Your task to perform on an android device: change the clock display to digital Image 0: 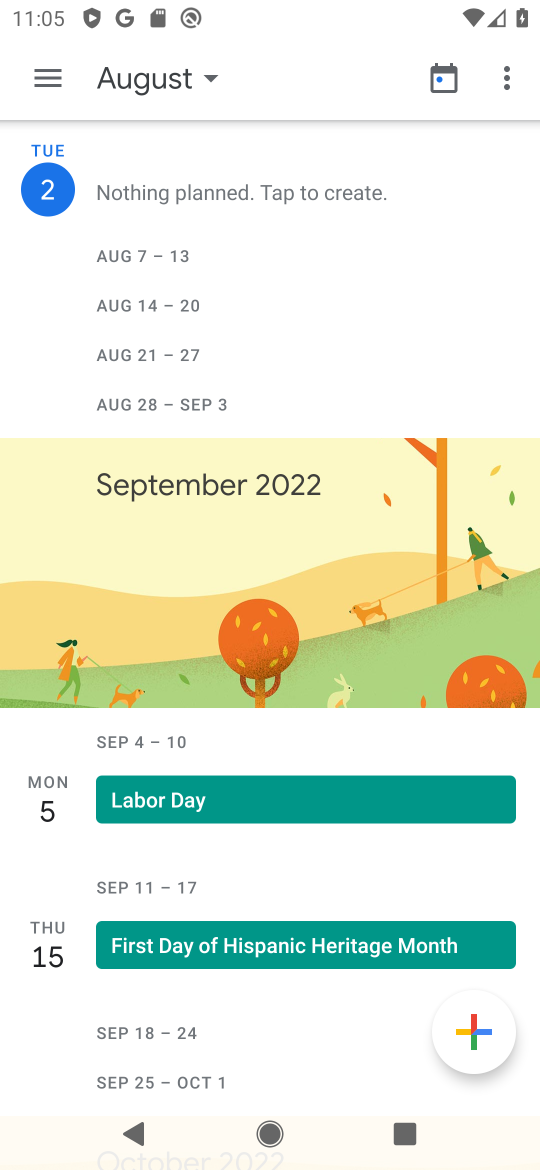
Step 0: press home button
Your task to perform on an android device: change the clock display to digital Image 1: 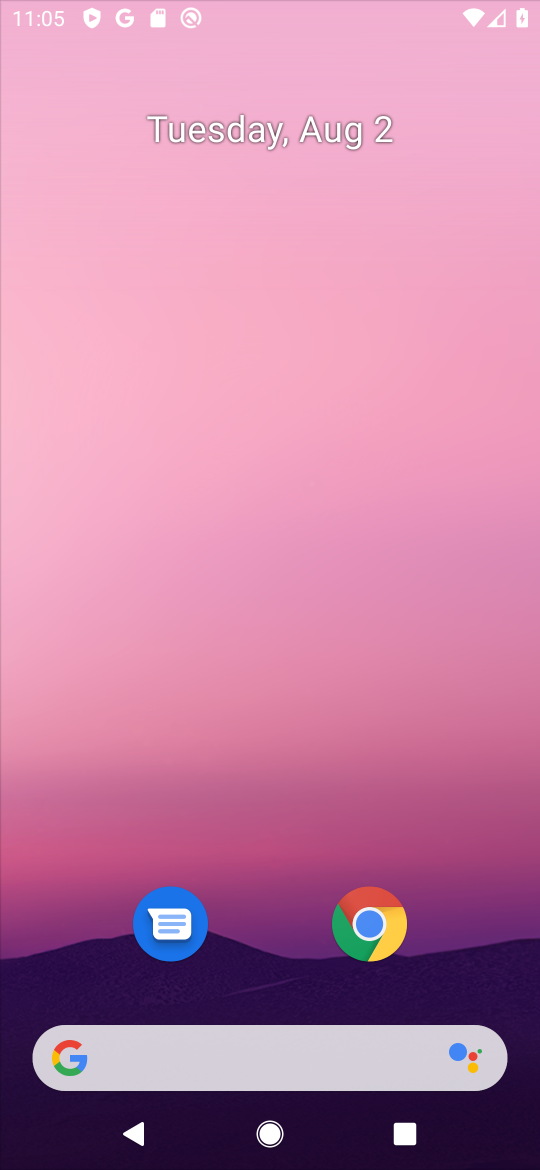
Step 1: drag from (210, 1028) to (218, 317)
Your task to perform on an android device: change the clock display to digital Image 2: 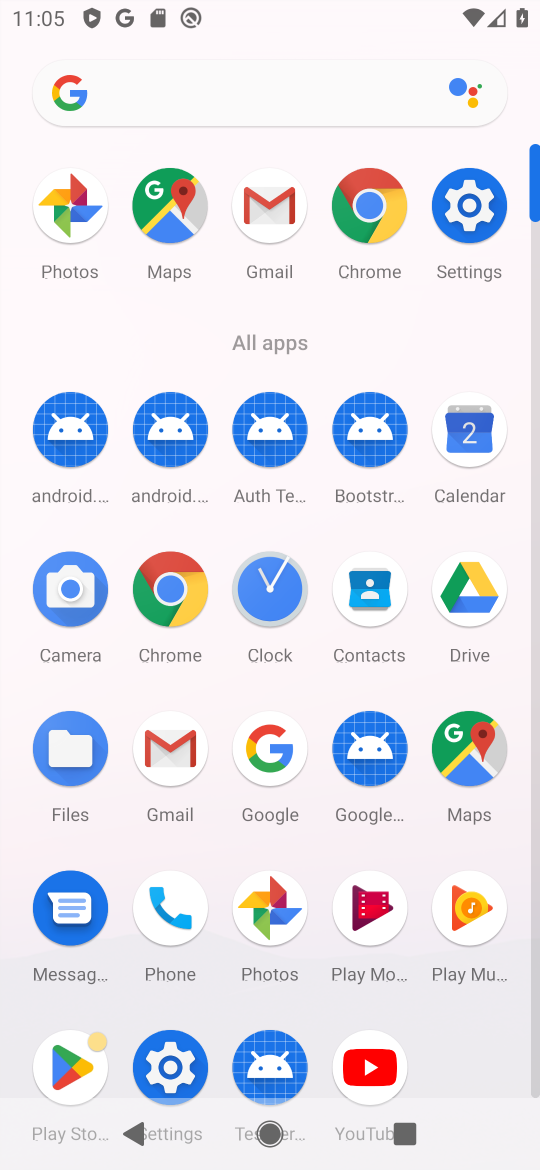
Step 2: click (280, 599)
Your task to perform on an android device: change the clock display to digital Image 3: 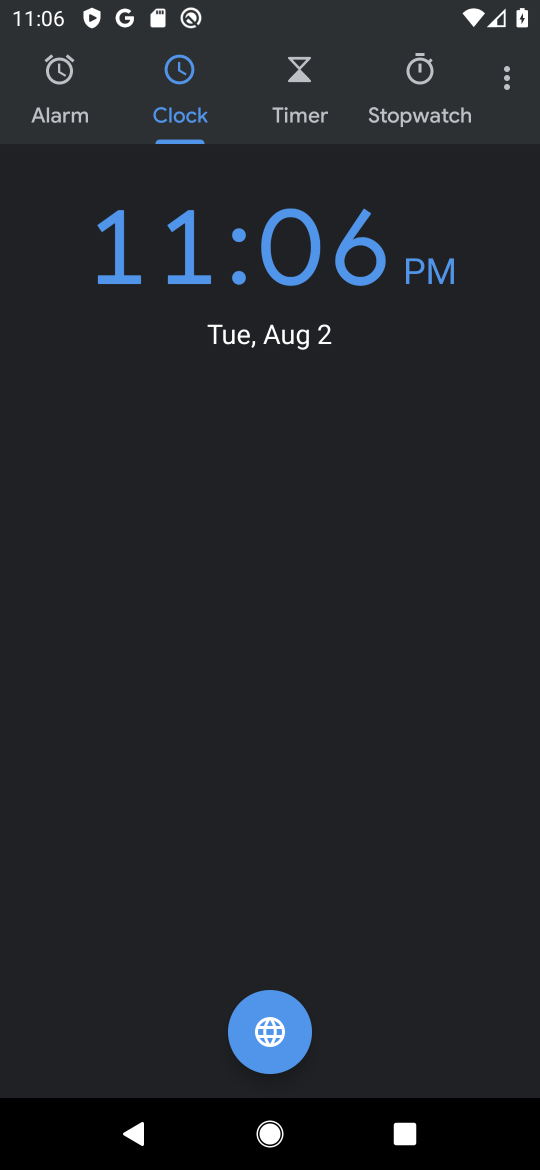
Step 3: click (516, 88)
Your task to perform on an android device: change the clock display to digital Image 4: 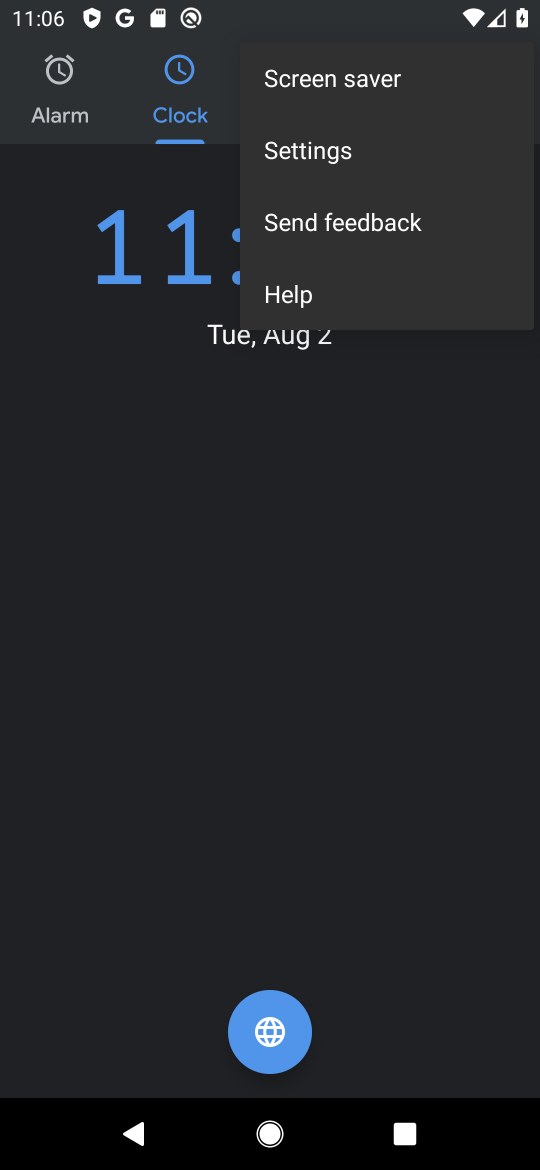
Step 4: click (366, 153)
Your task to perform on an android device: change the clock display to digital Image 5: 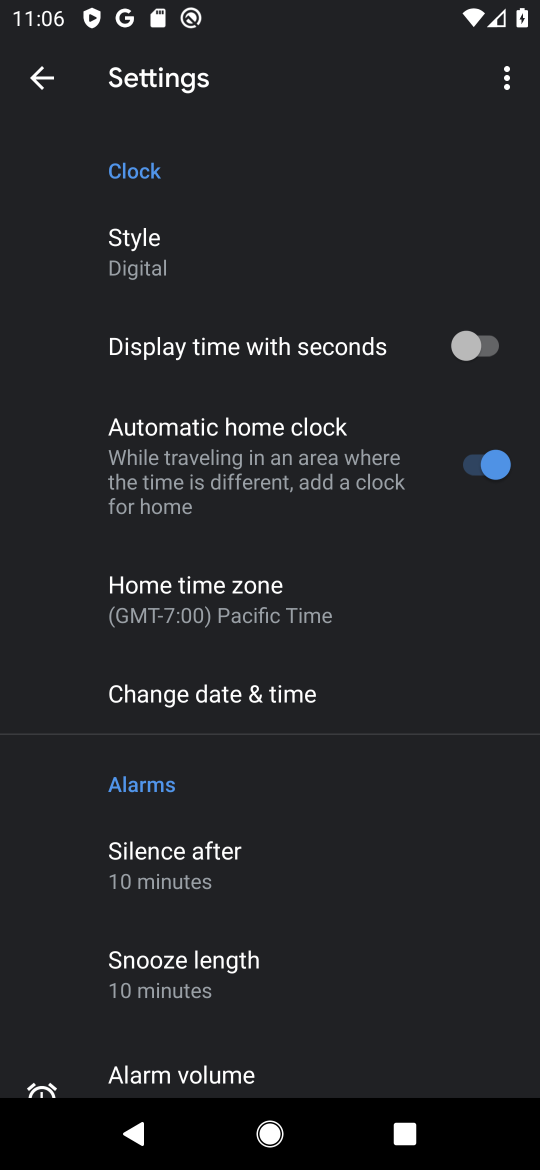
Step 5: click (133, 235)
Your task to perform on an android device: change the clock display to digital Image 6: 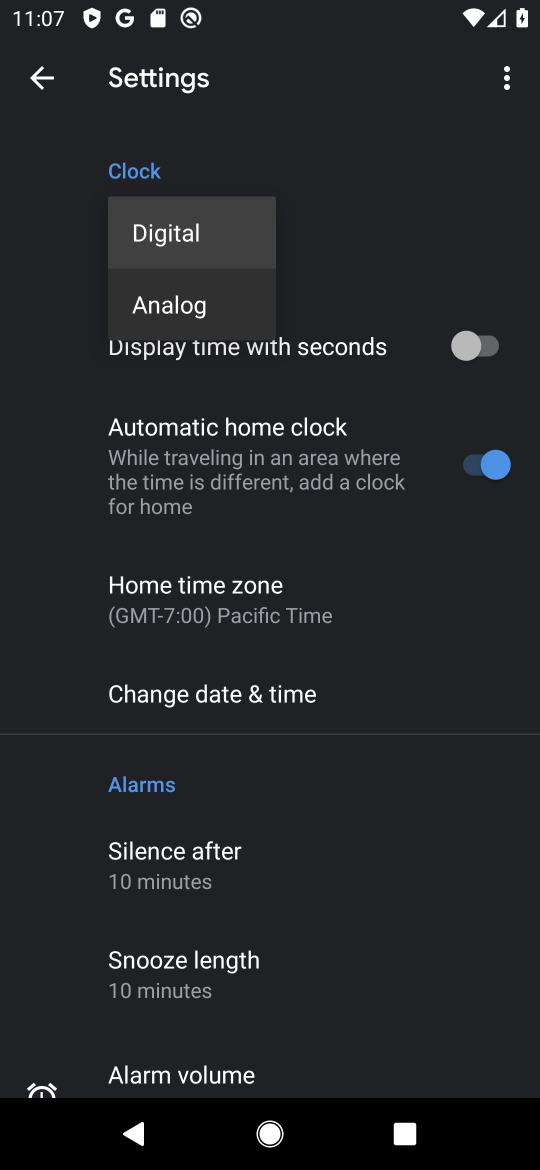
Step 6: task complete